Your task to perform on an android device: toggle wifi Image 0: 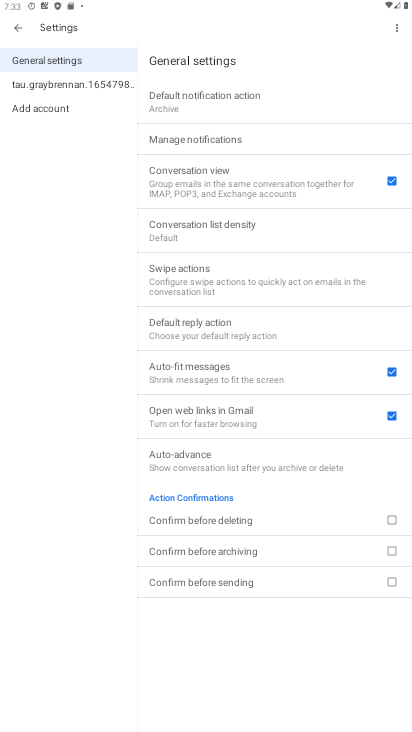
Step 0: press home button
Your task to perform on an android device: toggle wifi Image 1: 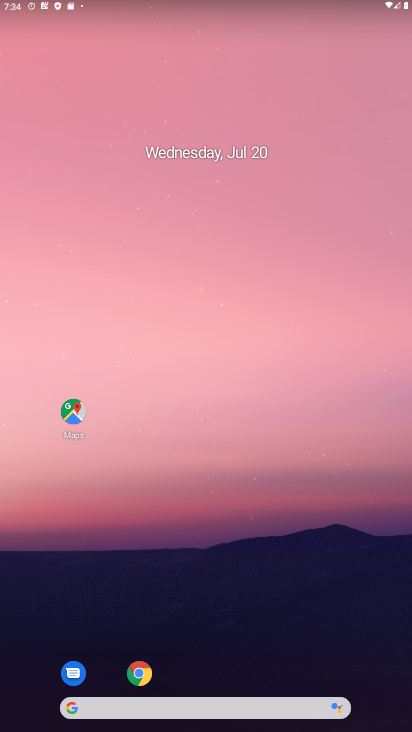
Step 1: drag from (134, 5) to (219, 572)
Your task to perform on an android device: toggle wifi Image 2: 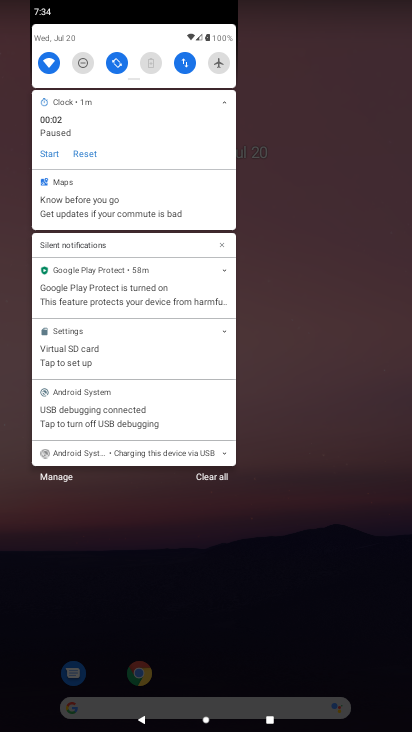
Step 2: click (49, 65)
Your task to perform on an android device: toggle wifi Image 3: 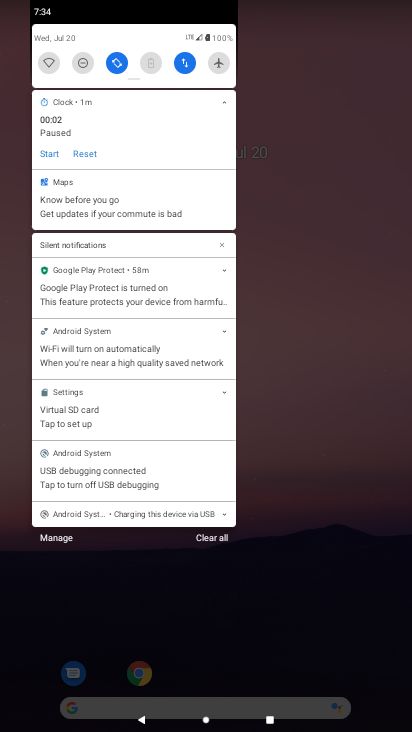
Step 3: task complete